Your task to perform on an android device: Go to eBay Image 0: 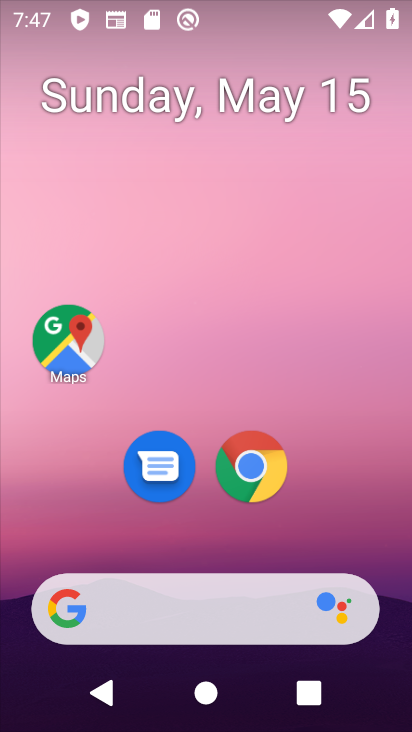
Step 0: click (197, 620)
Your task to perform on an android device: Go to eBay Image 1: 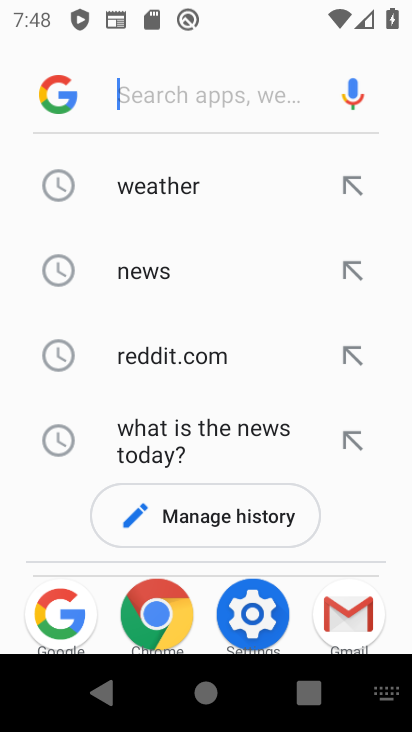
Step 1: type "ebay"
Your task to perform on an android device: Go to eBay Image 2: 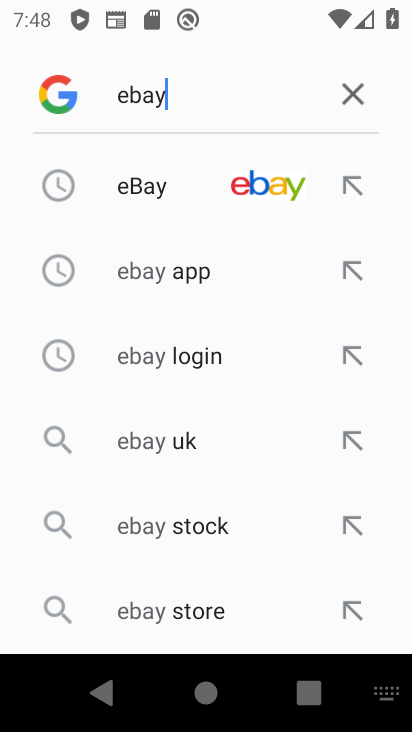
Step 2: click (135, 175)
Your task to perform on an android device: Go to eBay Image 3: 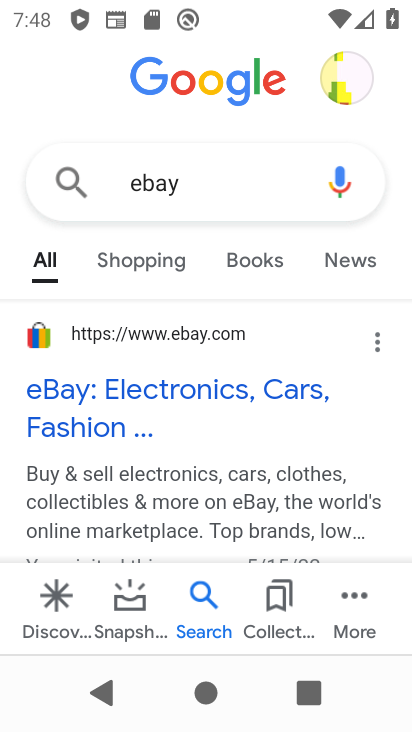
Step 3: click (179, 394)
Your task to perform on an android device: Go to eBay Image 4: 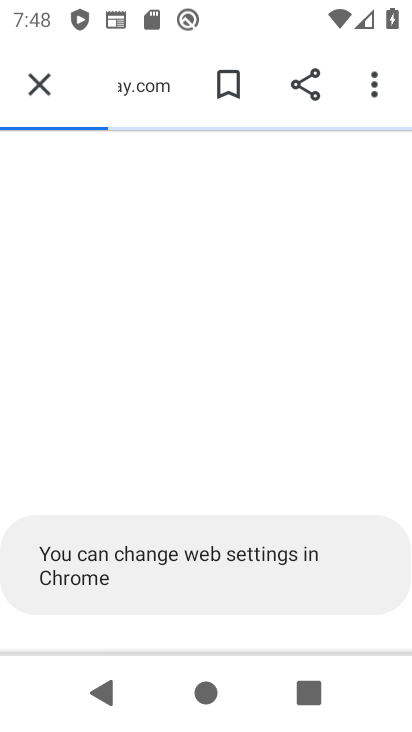
Step 4: task complete